Your task to perform on an android device: delete browsing data in the chrome app Image 0: 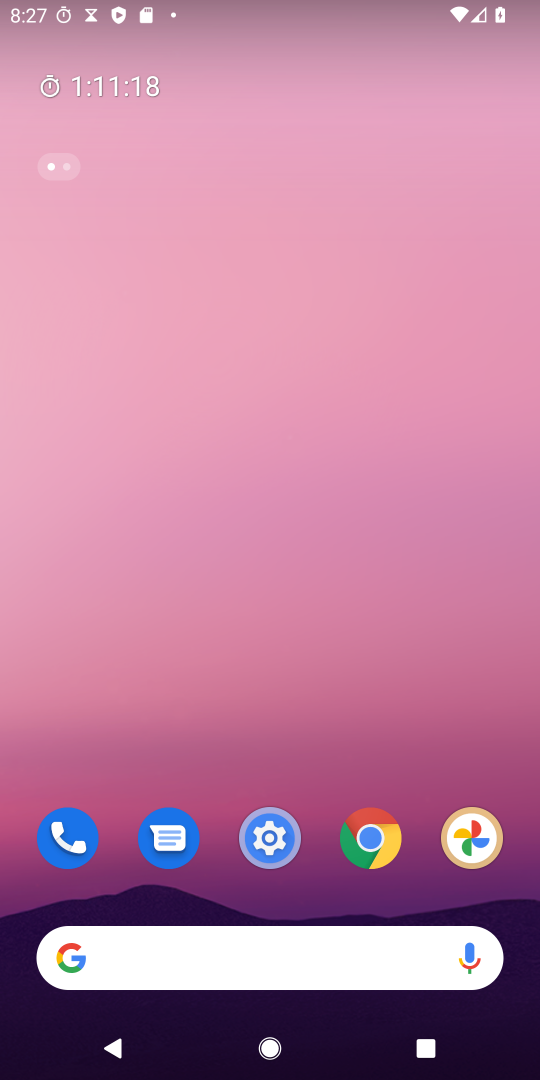
Step 0: drag from (387, 857) to (214, 307)
Your task to perform on an android device: delete browsing data in the chrome app Image 1: 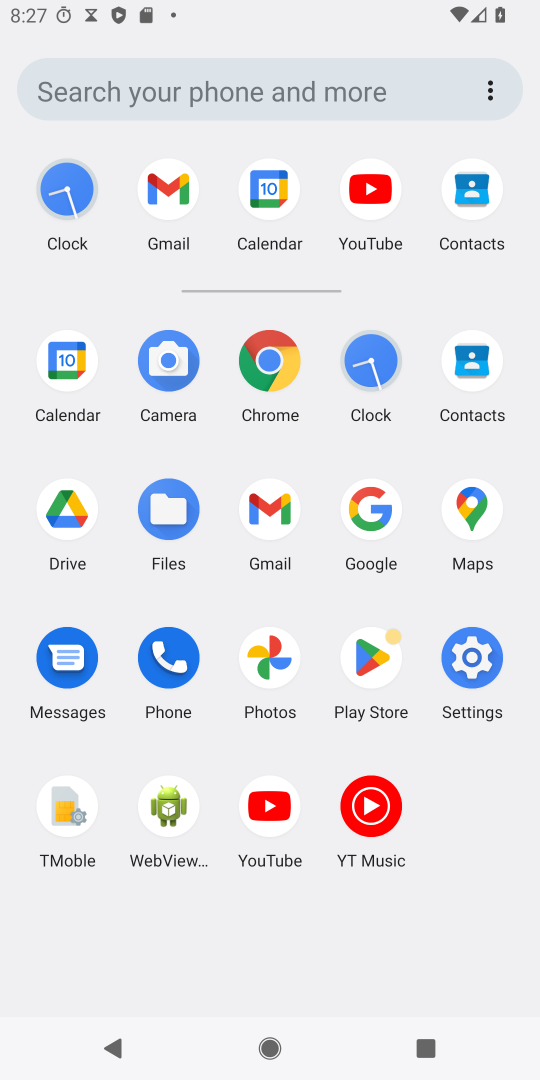
Step 1: click (265, 399)
Your task to perform on an android device: delete browsing data in the chrome app Image 2: 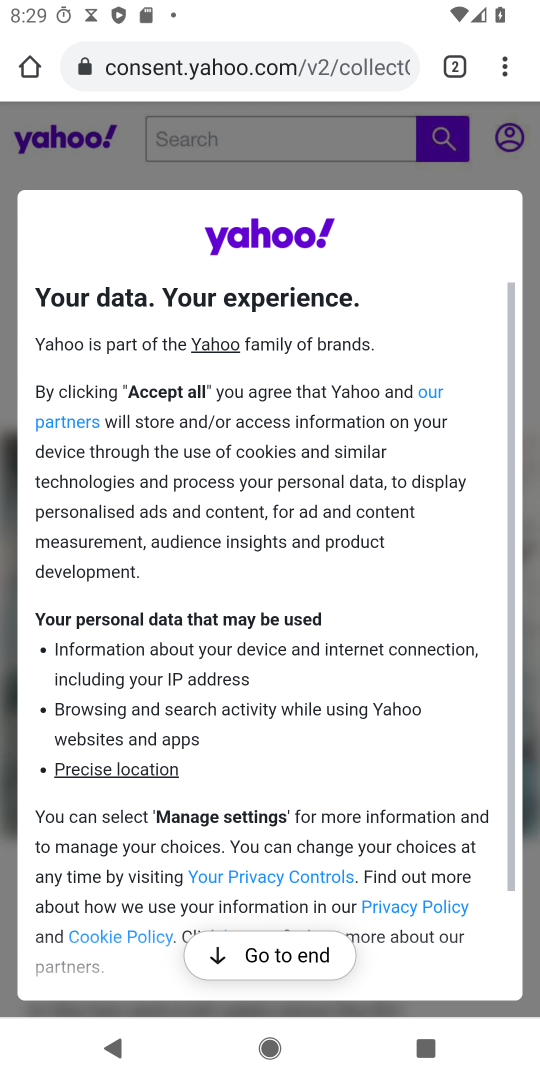
Step 2: drag from (508, 62) to (328, 826)
Your task to perform on an android device: delete browsing data in the chrome app Image 3: 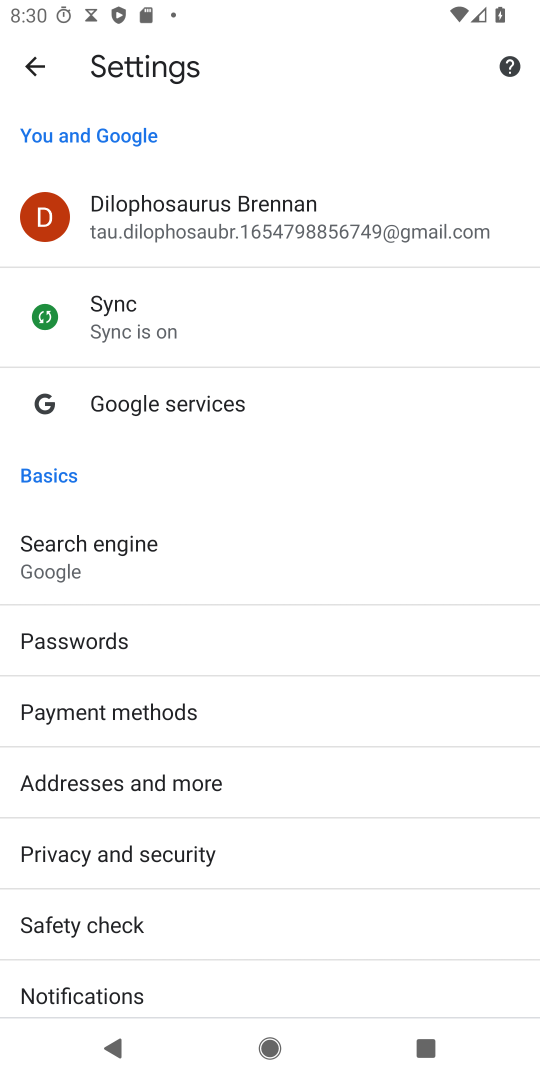
Step 3: drag from (190, 862) to (165, 354)
Your task to perform on an android device: delete browsing data in the chrome app Image 4: 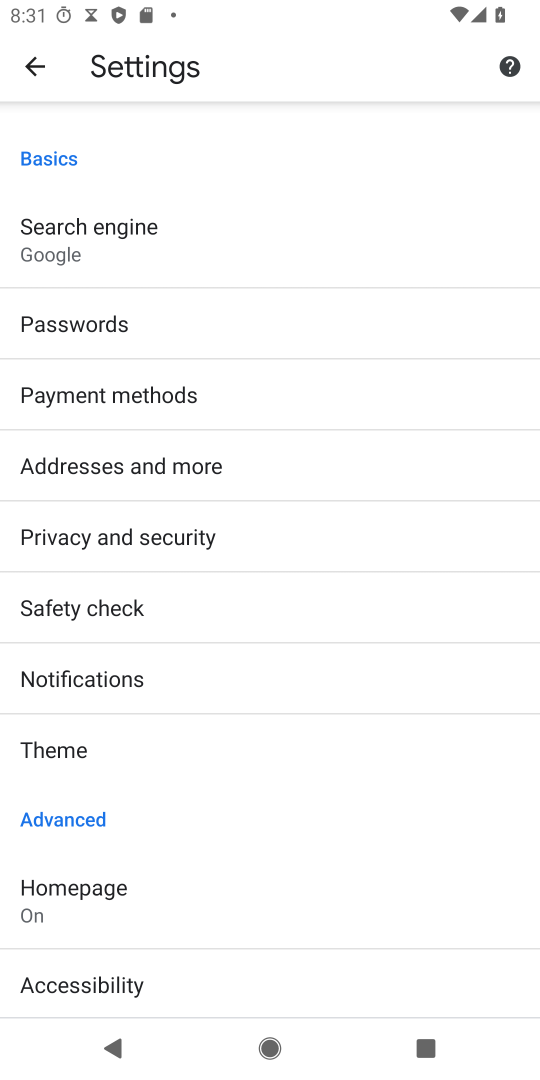
Step 4: click (202, 545)
Your task to perform on an android device: delete browsing data in the chrome app Image 5: 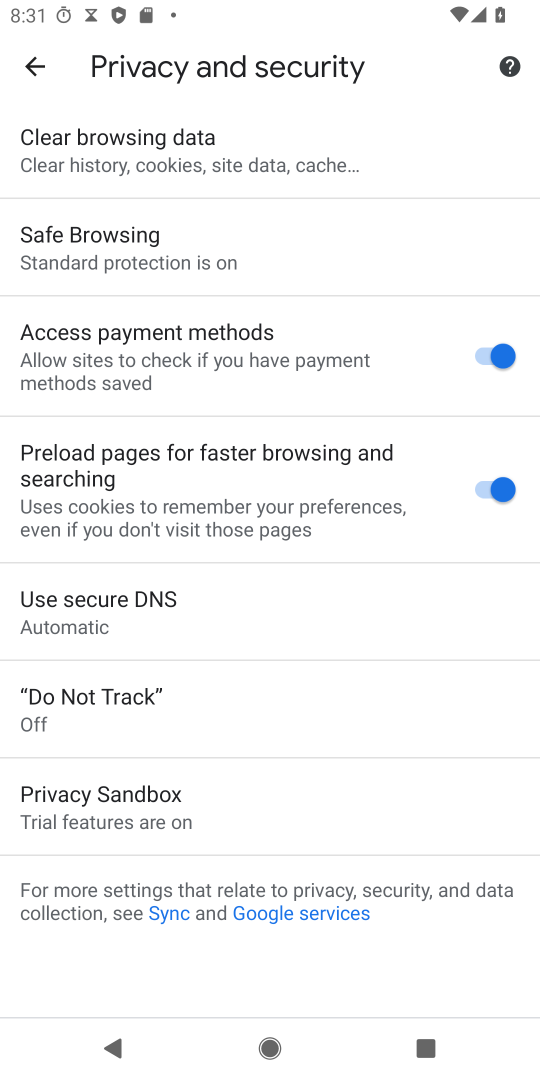
Step 5: click (218, 170)
Your task to perform on an android device: delete browsing data in the chrome app Image 6: 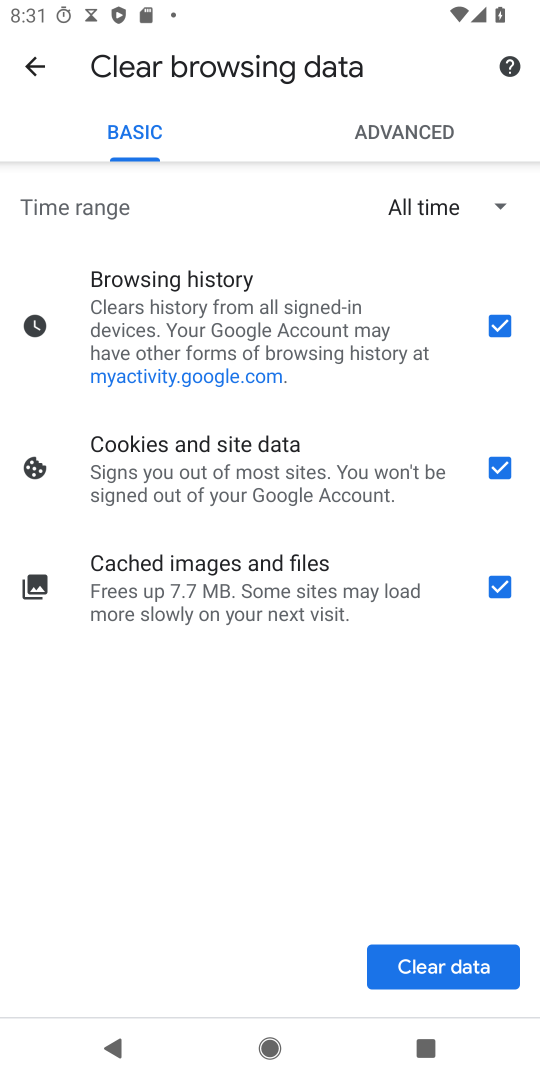
Step 6: click (450, 965)
Your task to perform on an android device: delete browsing data in the chrome app Image 7: 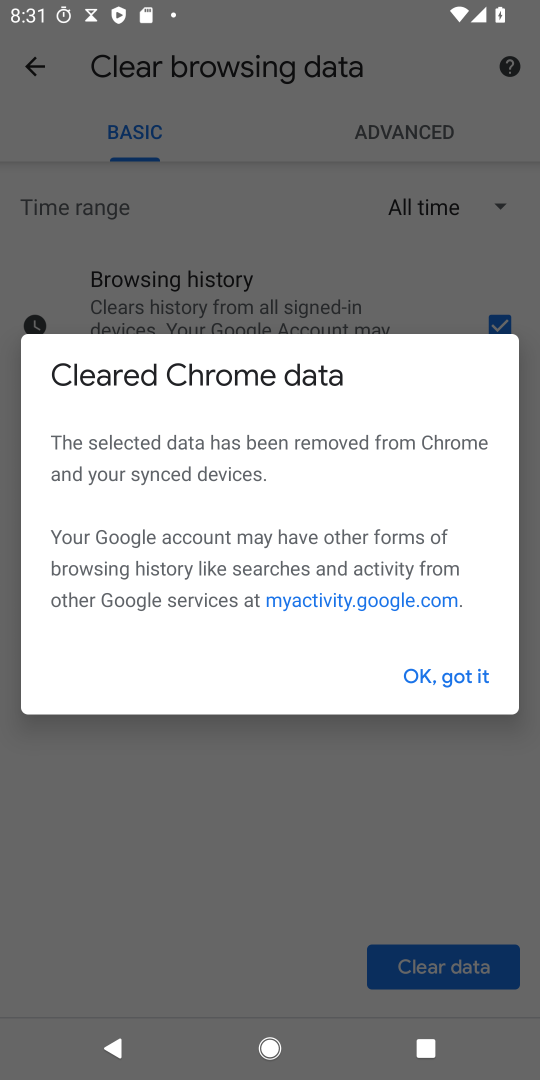
Step 7: click (427, 661)
Your task to perform on an android device: delete browsing data in the chrome app Image 8: 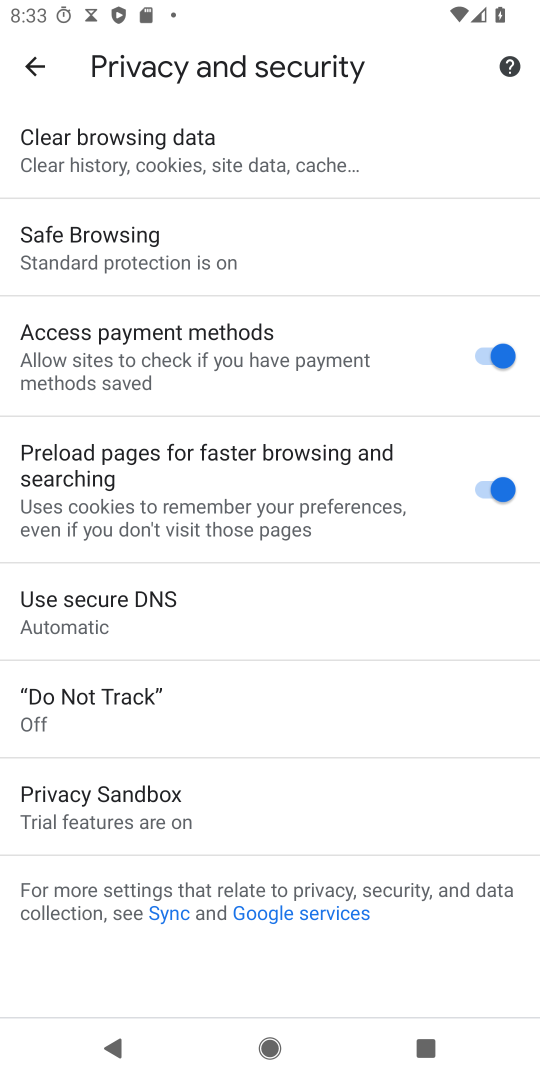
Step 8: click (47, 167)
Your task to perform on an android device: delete browsing data in the chrome app Image 9: 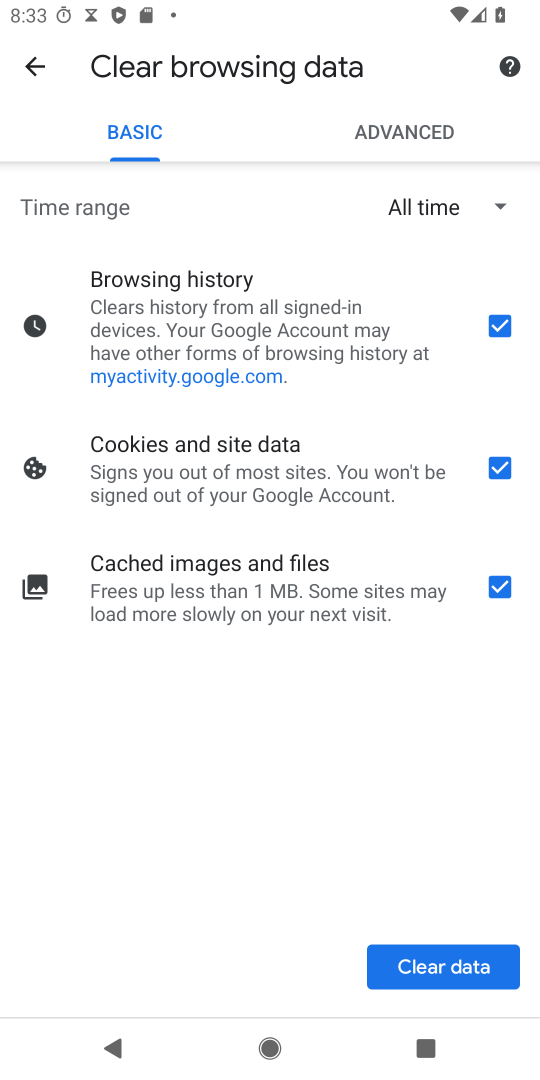
Step 9: click (437, 977)
Your task to perform on an android device: delete browsing data in the chrome app Image 10: 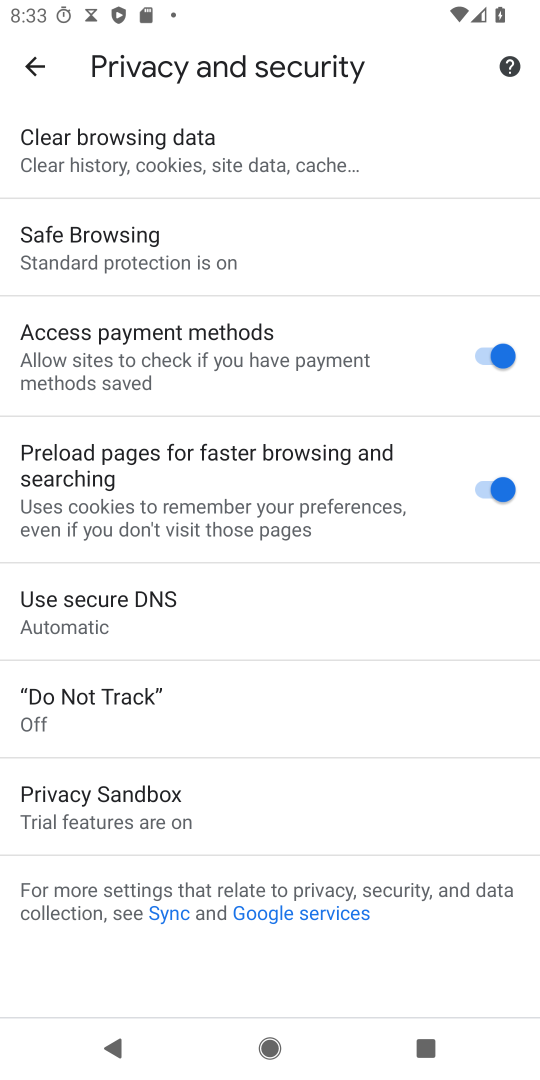
Step 10: task complete